Your task to perform on an android device: Open network settings Image 0: 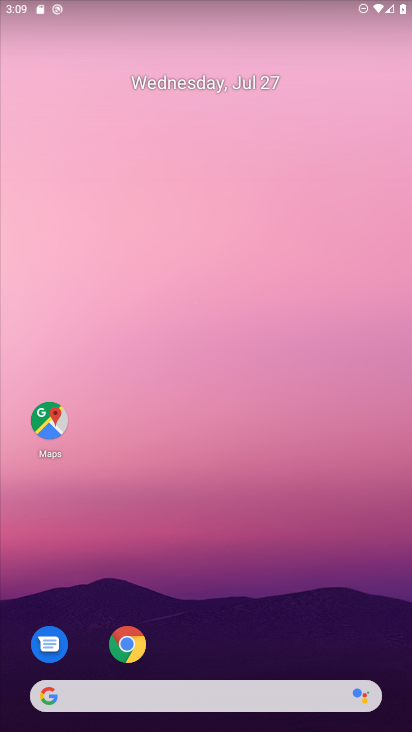
Step 0: drag from (239, 629) to (280, 0)
Your task to perform on an android device: Open network settings Image 1: 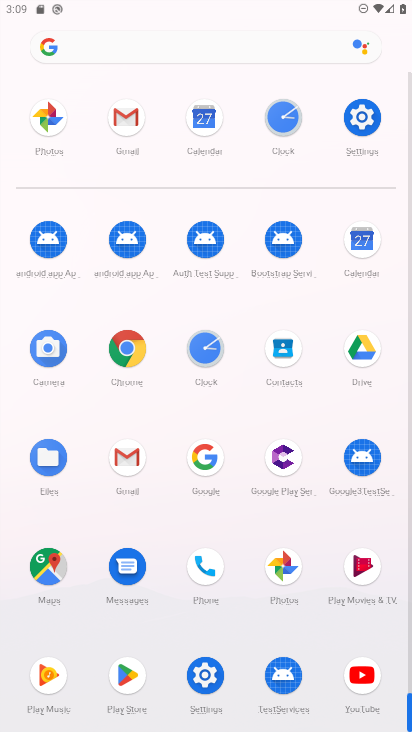
Step 1: click (357, 130)
Your task to perform on an android device: Open network settings Image 2: 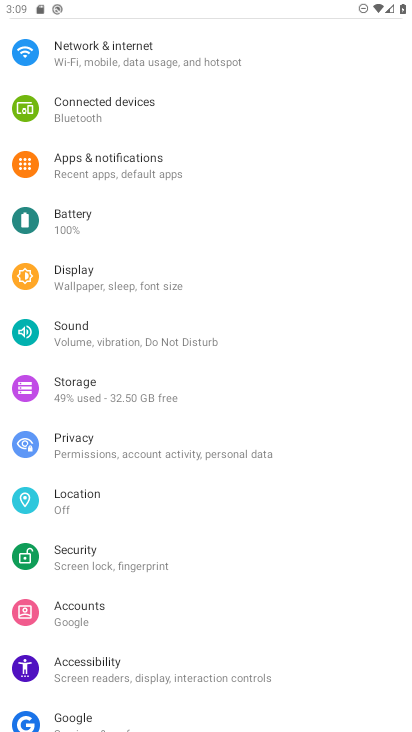
Step 2: click (141, 66)
Your task to perform on an android device: Open network settings Image 3: 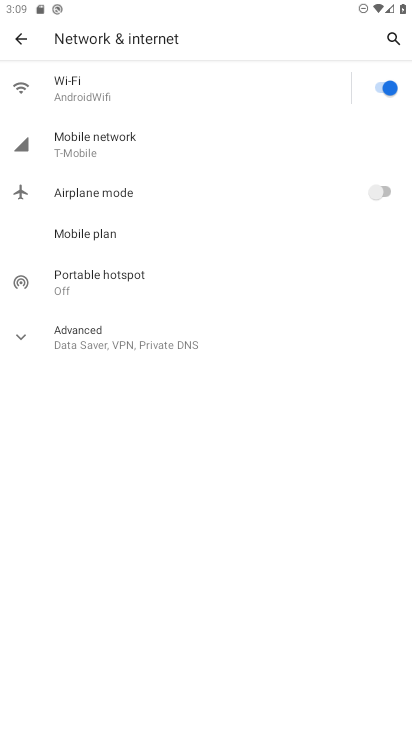
Step 3: task complete